Your task to perform on an android device: turn on data saver in the chrome app Image 0: 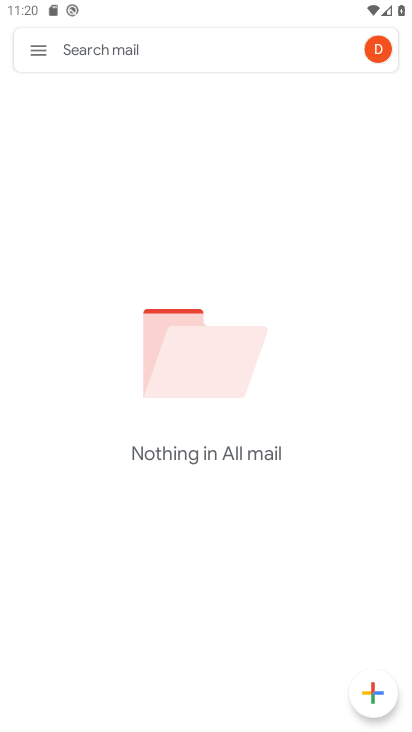
Step 0: press home button
Your task to perform on an android device: turn on data saver in the chrome app Image 1: 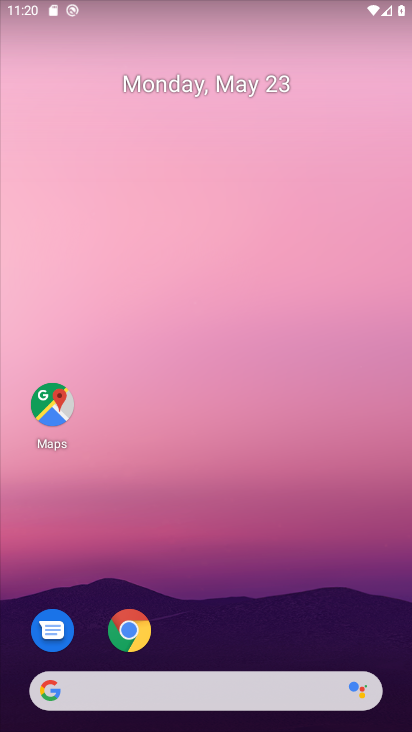
Step 1: click (132, 628)
Your task to perform on an android device: turn on data saver in the chrome app Image 2: 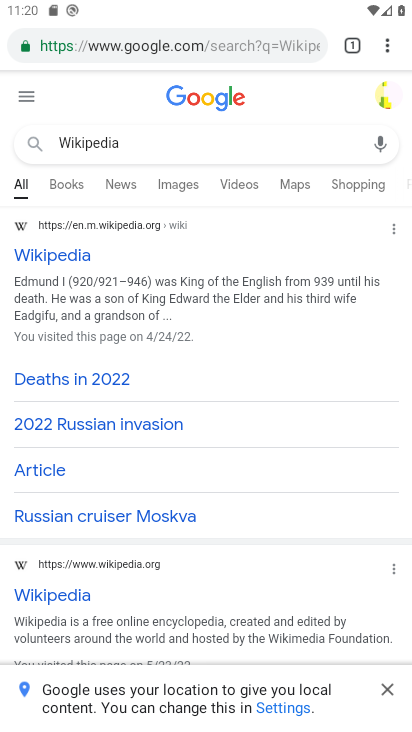
Step 2: click (386, 42)
Your task to perform on an android device: turn on data saver in the chrome app Image 3: 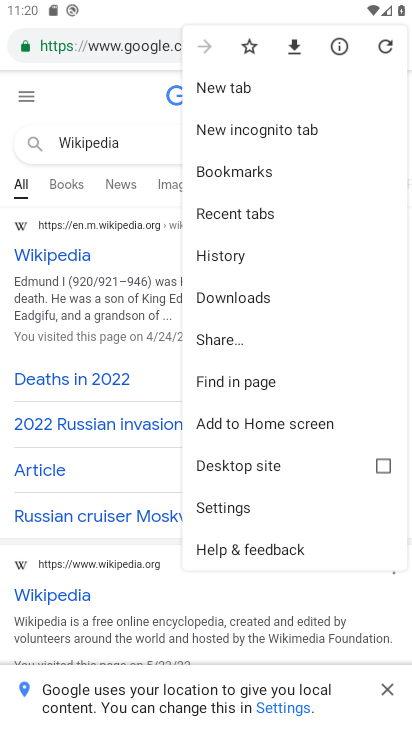
Step 3: click (252, 504)
Your task to perform on an android device: turn on data saver in the chrome app Image 4: 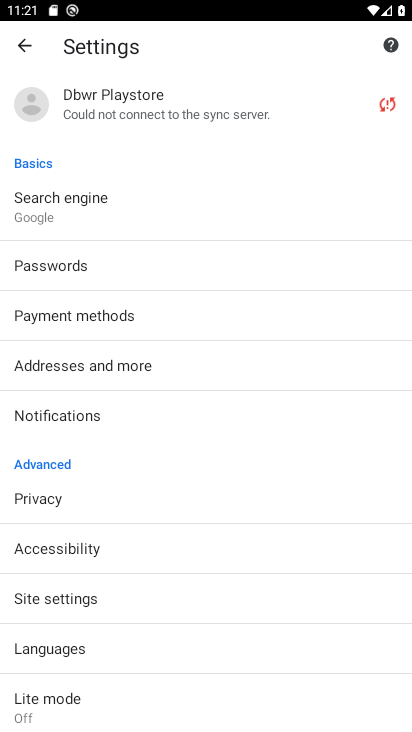
Step 4: click (113, 691)
Your task to perform on an android device: turn on data saver in the chrome app Image 5: 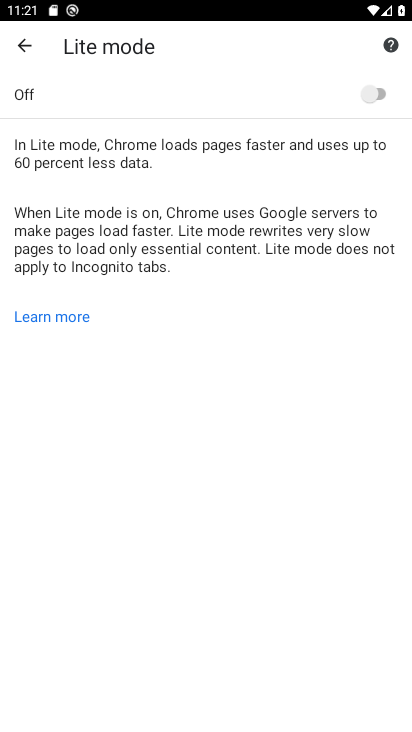
Step 5: click (377, 95)
Your task to perform on an android device: turn on data saver in the chrome app Image 6: 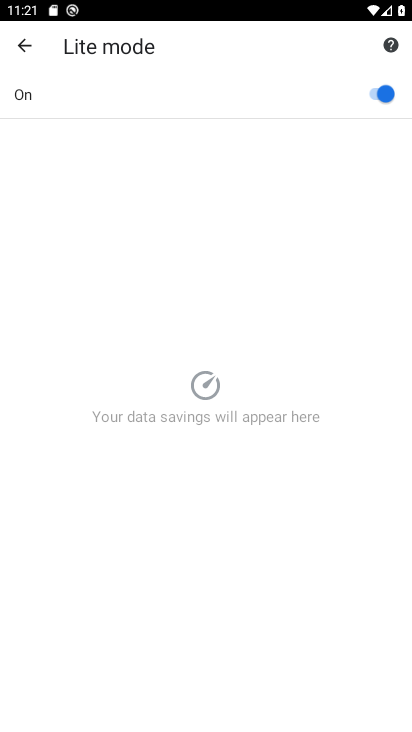
Step 6: task complete